Your task to perform on an android device: Show me the alarms in the clock app Image 0: 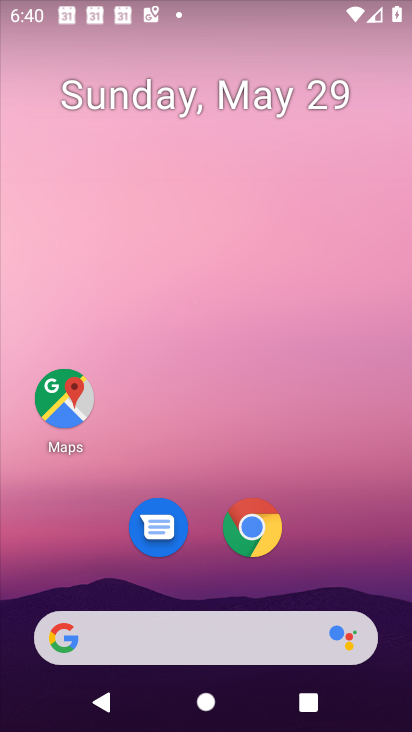
Step 0: drag from (335, 586) to (247, 91)
Your task to perform on an android device: Show me the alarms in the clock app Image 1: 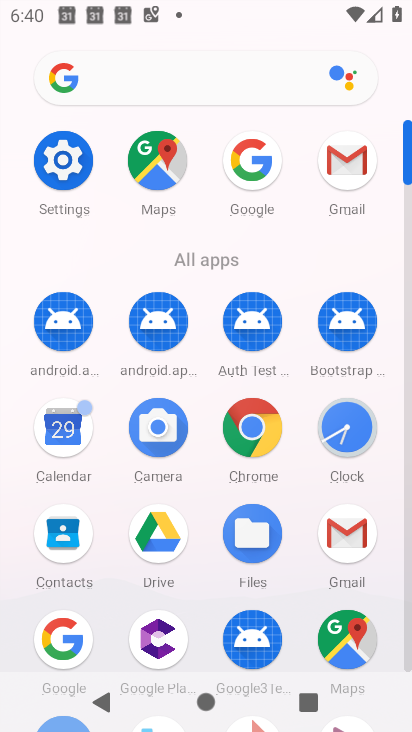
Step 1: click (330, 421)
Your task to perform on an android device: Show me the alarms in the clock app Image 2: 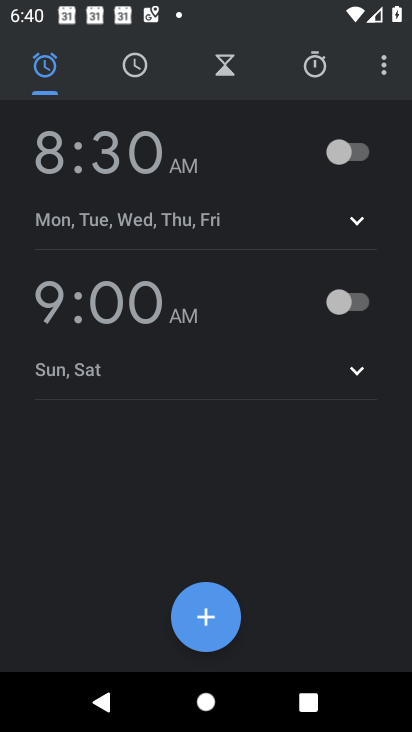
Step 2: task complete